Your task to perform on an android device: Search for Mexican restaurants on Maps Image 0: 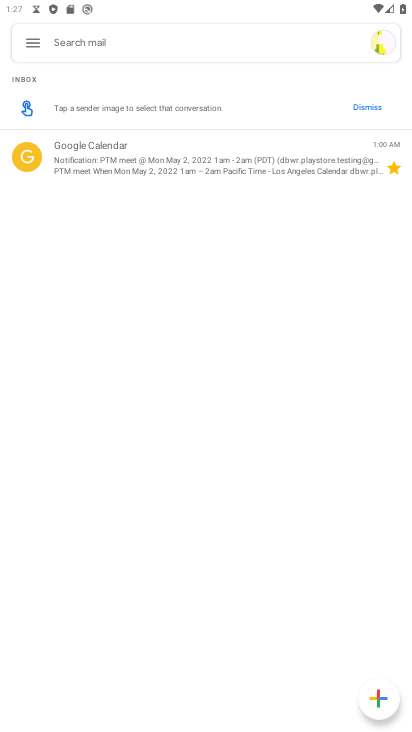
Step 0: press home button
Your task to perform on an android device: Search for Mexican restaurants on Maps Image 1: 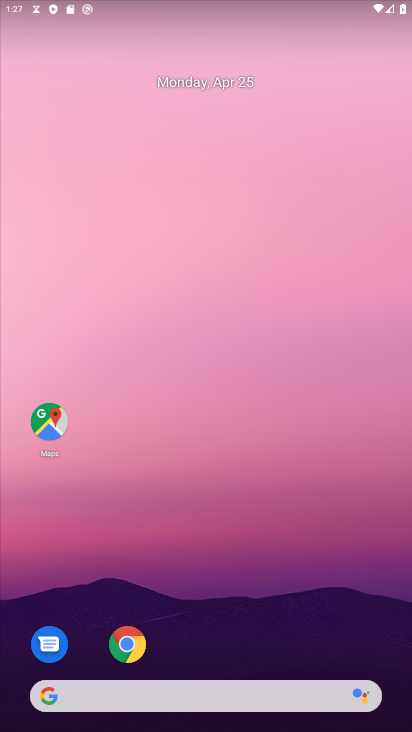
Step 1: click (42, 424)
Your task to perform on an android device: Search for Mexican restaurants on Maps Image 2: 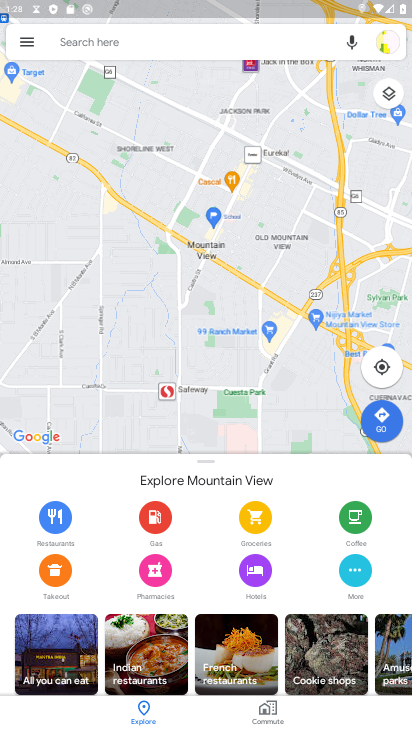
Step 2: click (90, 46)
Your task to perform on an android device: Search for Mexican restaurants on Maps Image 3: 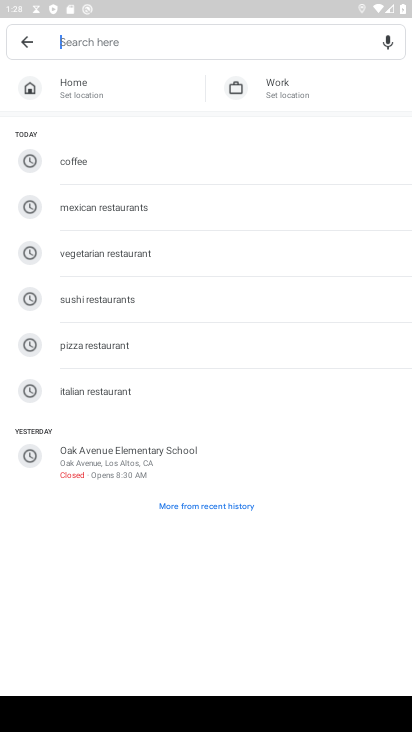
Step 3: type "mexican restaurant"
Your task to perform on an android device: Search for Mexican restaurants on Maps Image 4: 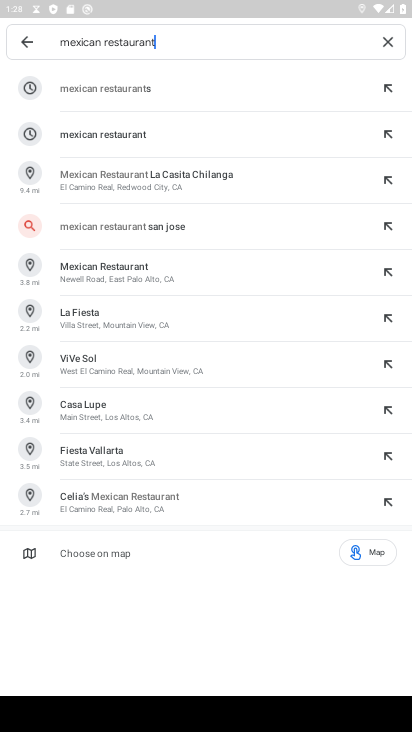
Step 4: click (95, 96)
Your task to perform on an android device: Search for Mexican restaurants on Maps Image 5: 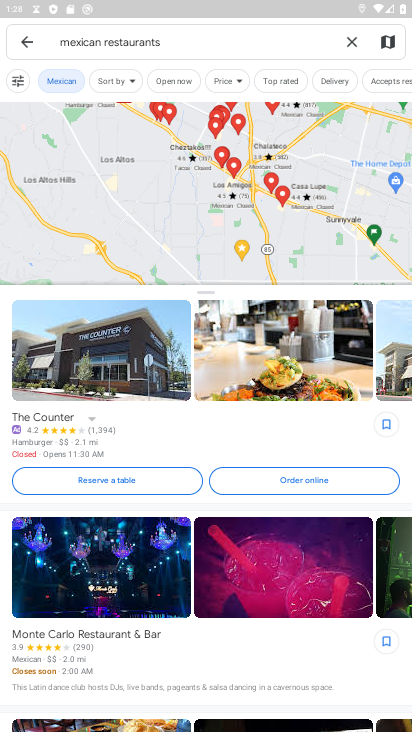
Step 5: task complete